Your task to perform on an android device: stop showing notifications on the lock screen Image 0: 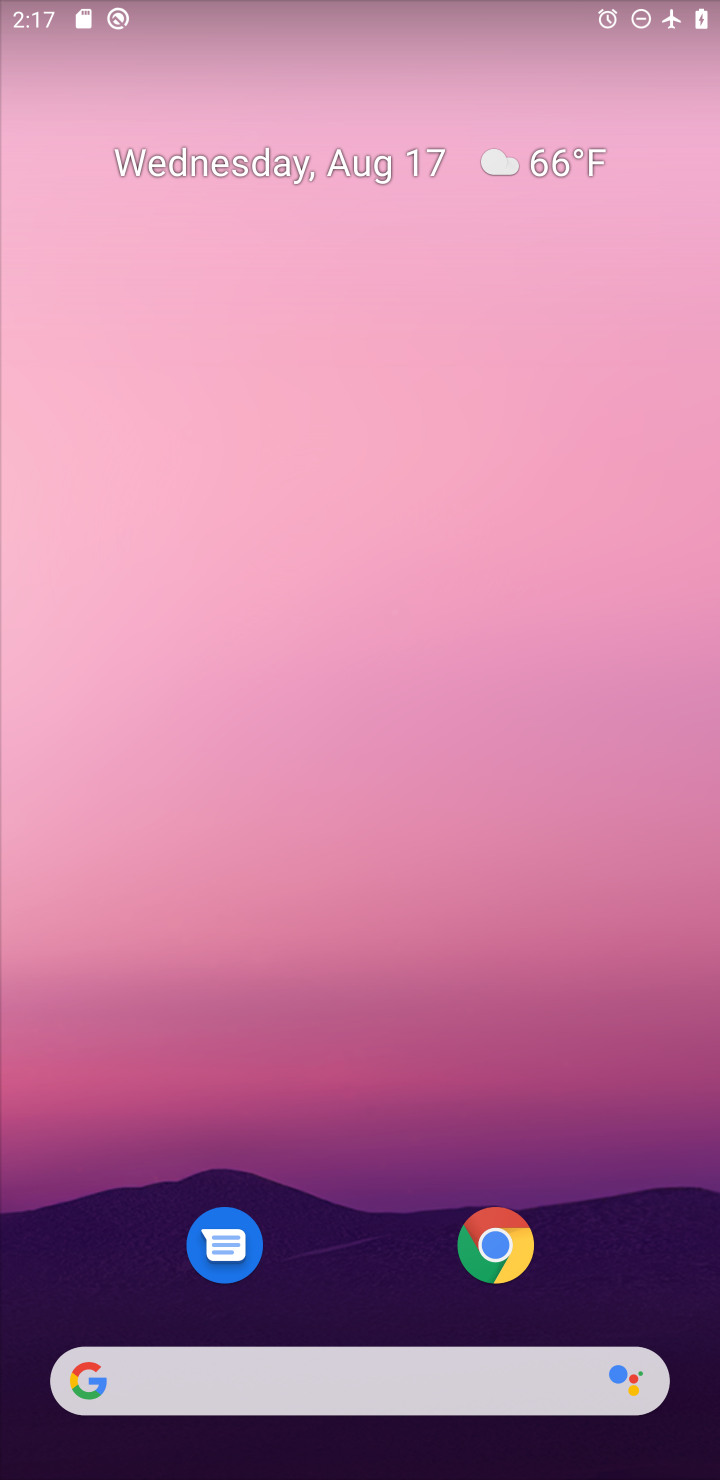
Step 0: drag from (341, 938) to (291, 111)
Your task to perform on an android device: stop showing notifications on the lock screen Image 1: 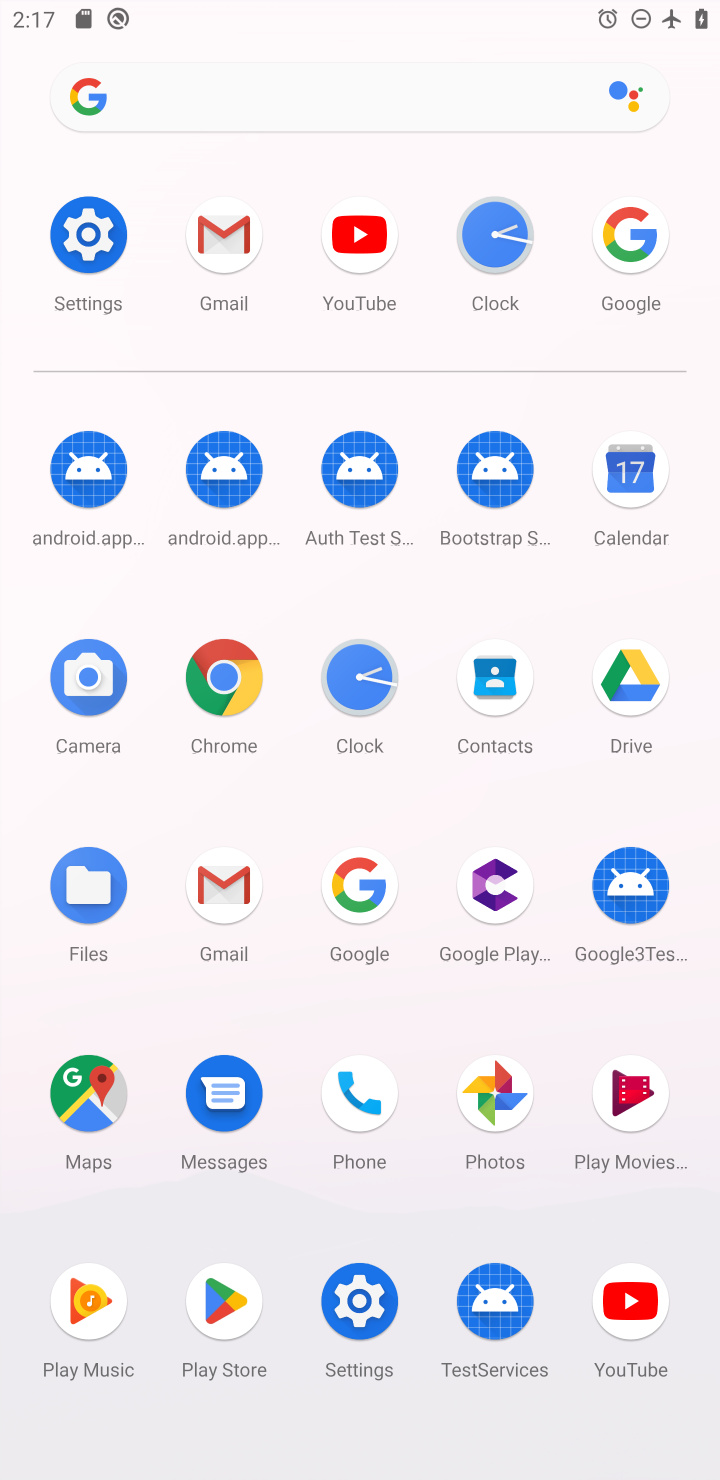
Step 1: click (358, 1291)
Your task to perform on an android device: stop showing notifications on the lock screen Image 2: 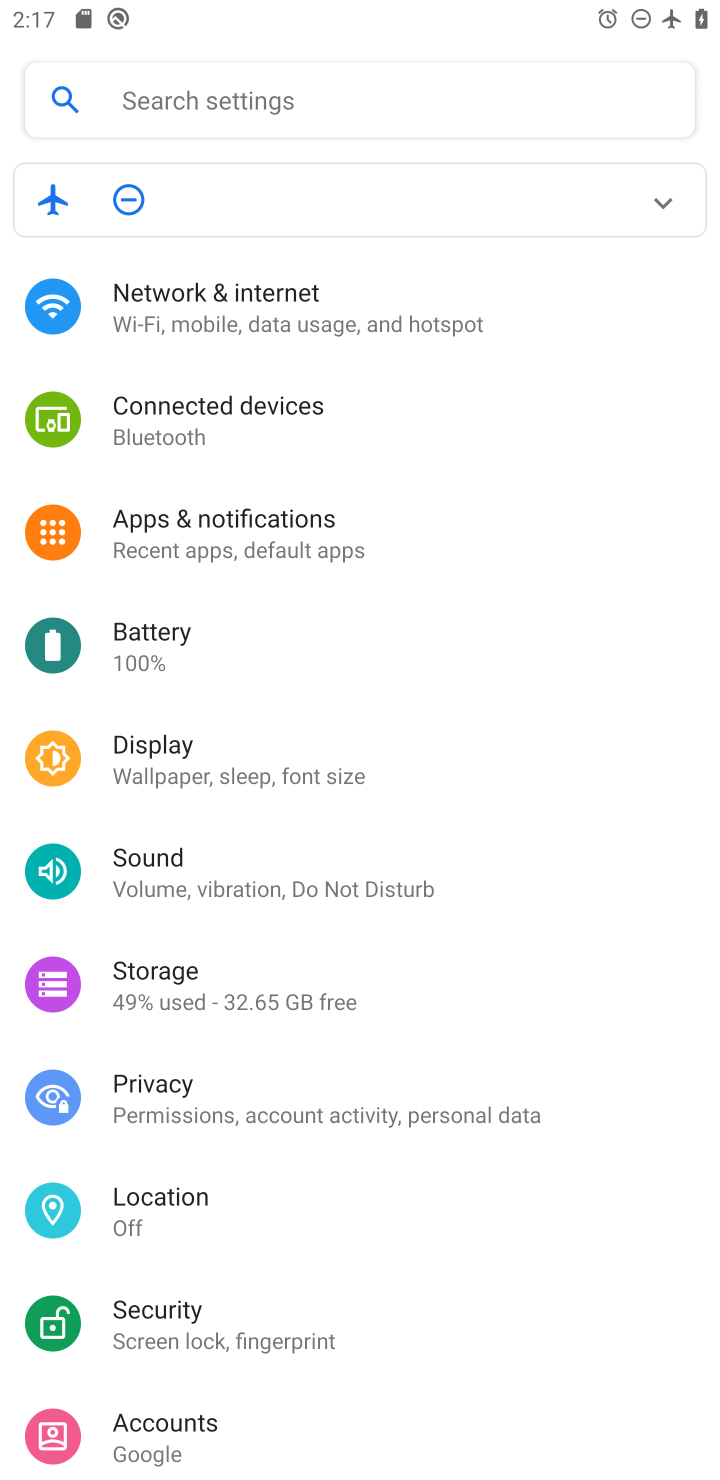
Step 2: click (206, 535)
Your task to perform on an android device: stop showing notifications on the lock screen Image 3: 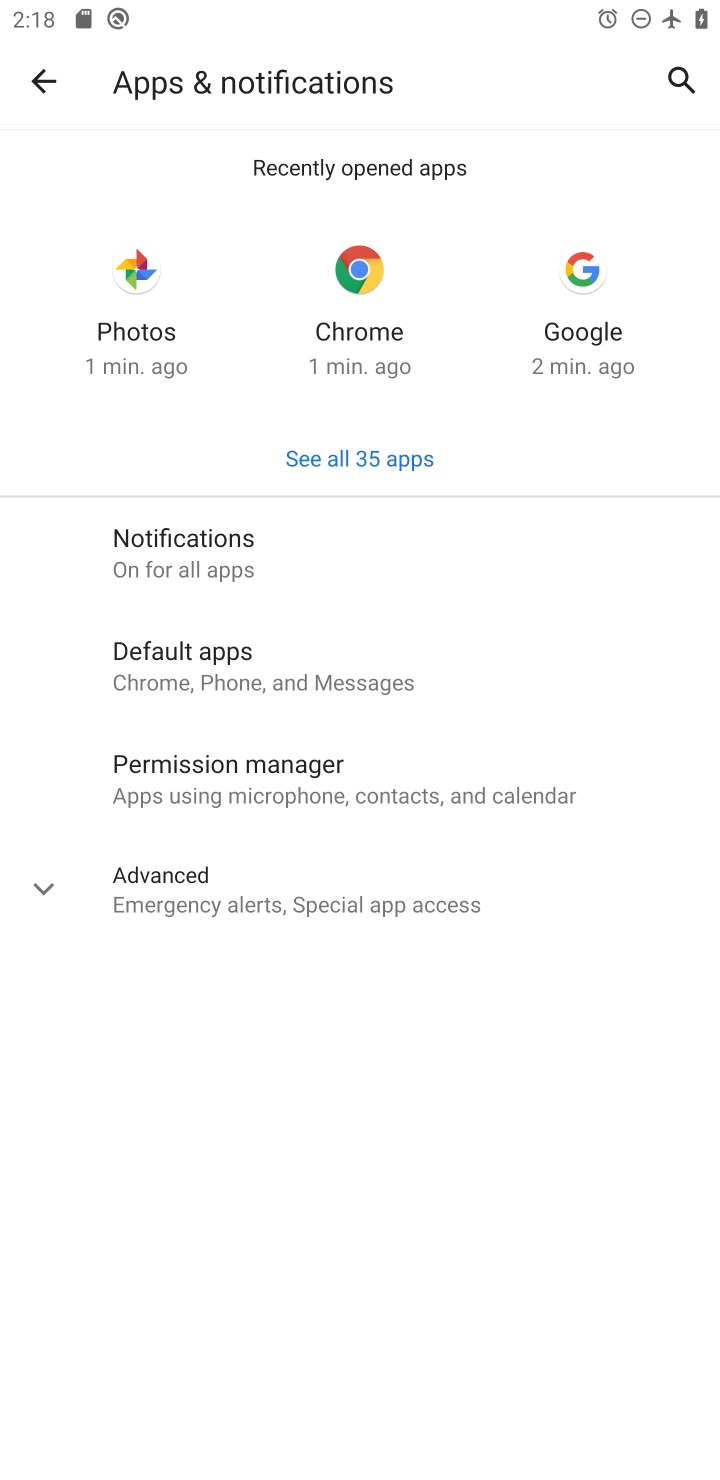
Step 3: click (162, 559)
Your task to perform on an android device: stop showing notifications on the lock screen Image 4: 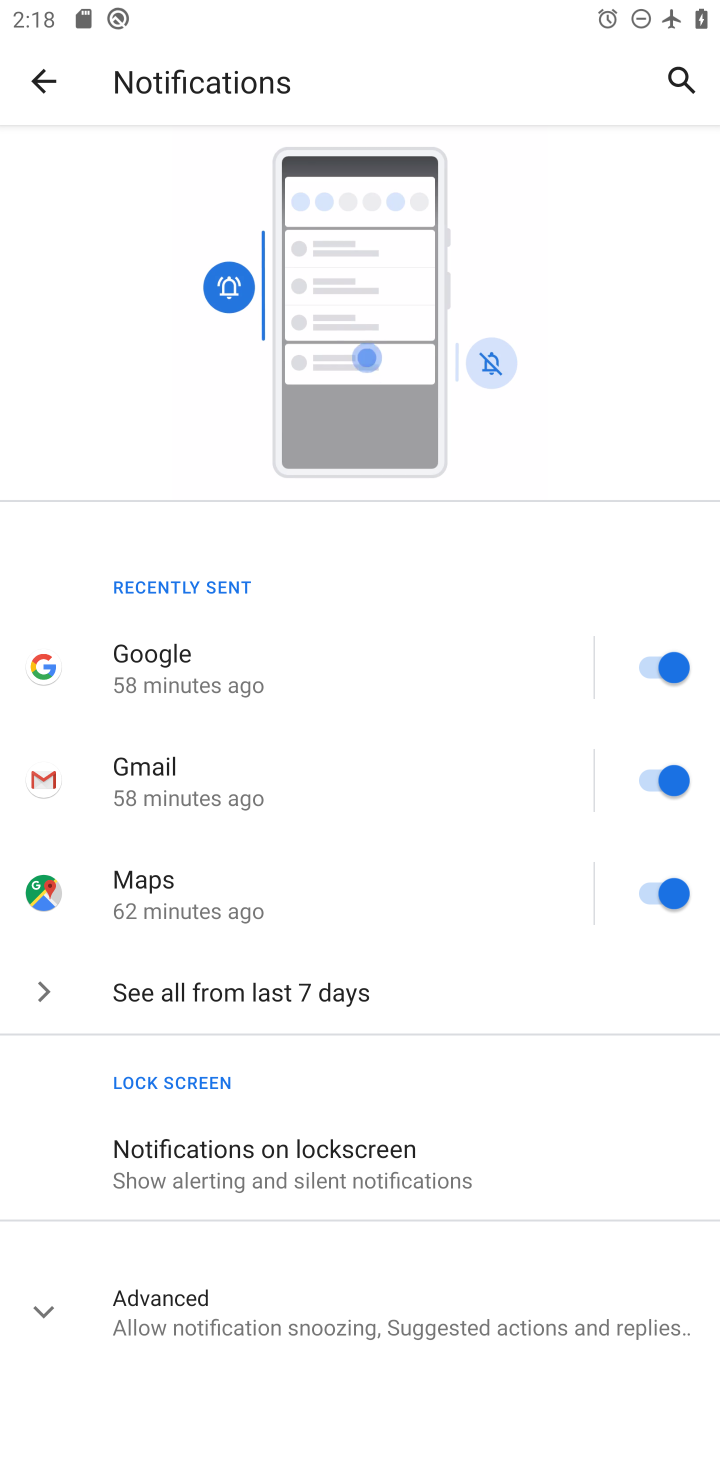
Step 4: click (247, 1168)
Your task to perform on an android device: stop showing notifications on the lock screen Image 5: 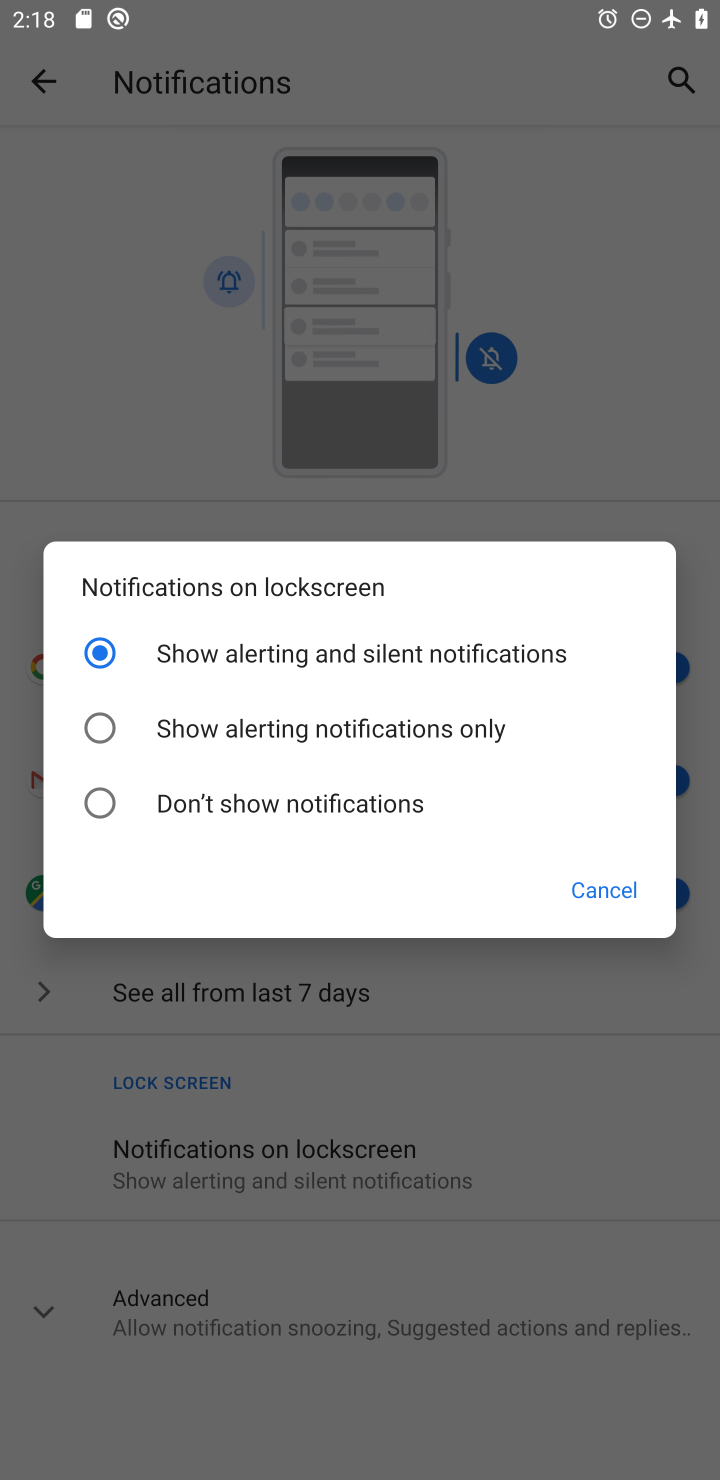
Step 5: click (94, 796)
Your task to perform on an android device: stop showing notifications on the lock screen Image 6: 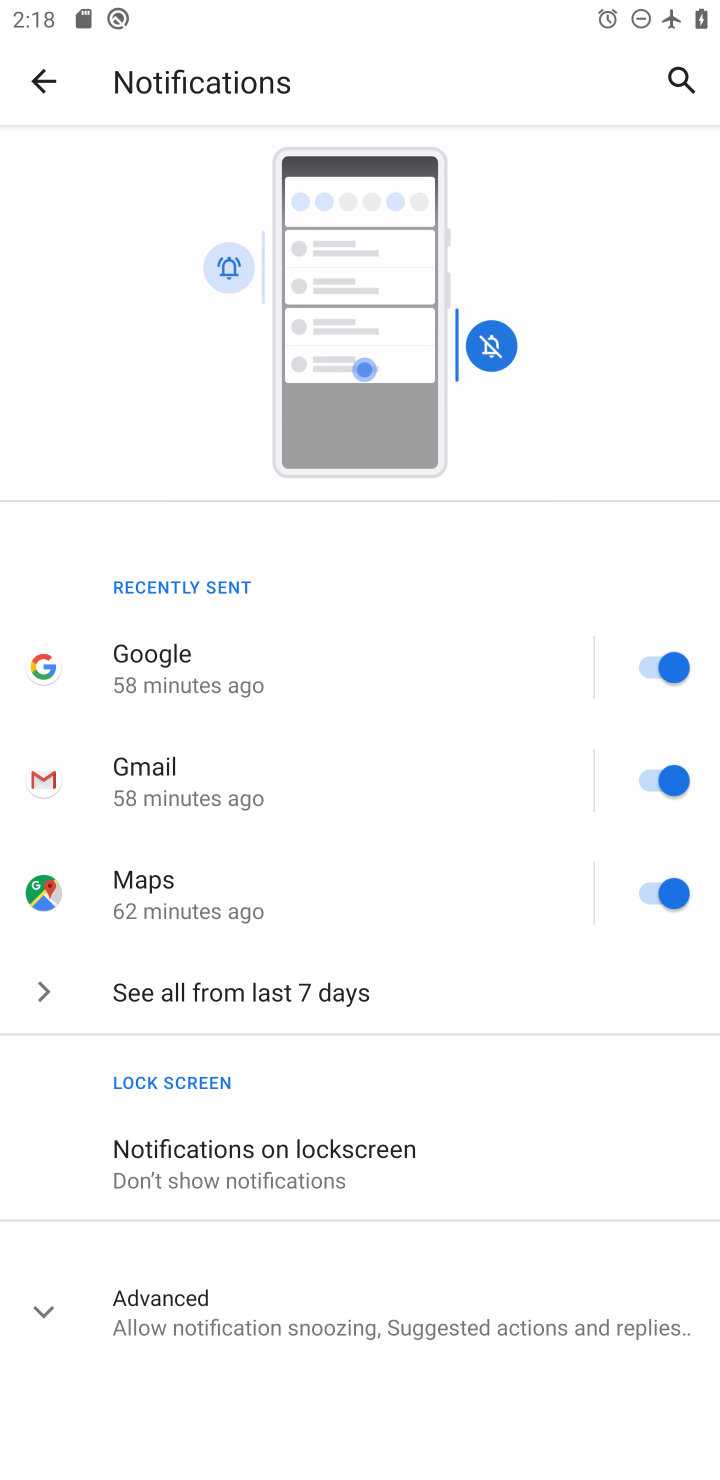
Step 6: task complete